Your task to perform on an android device: turn off data saver in the chrome app Image 0: 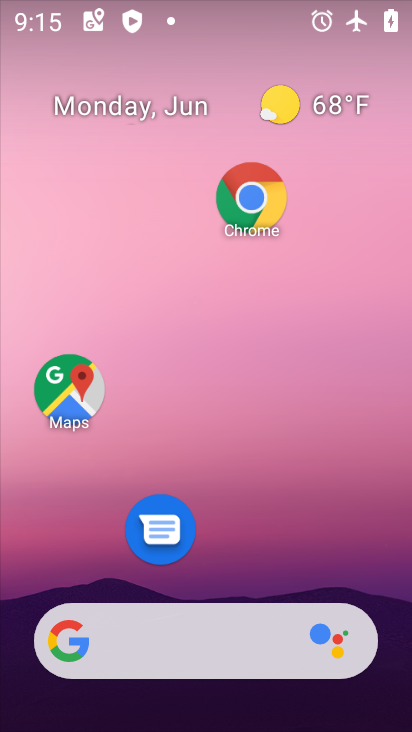
Step 0: click (264, 205)
Your task to perform on an android device: turn off data saver in the chrome app Image 1: 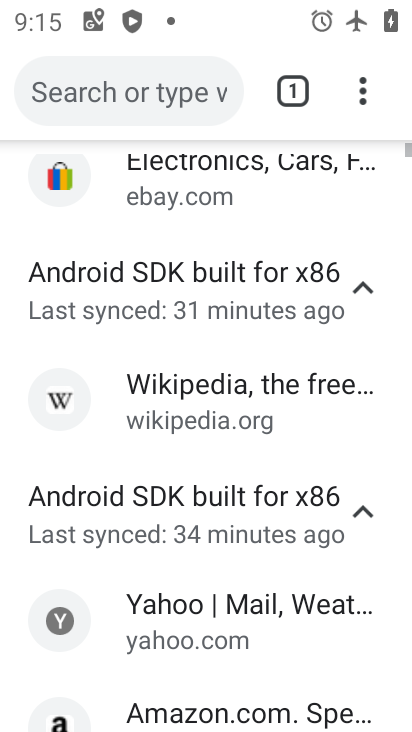
Step 1: drag from (358, 88) to (174, 583)
Your task to perform on an android device: turn off data saver in the chrome app Image 2: 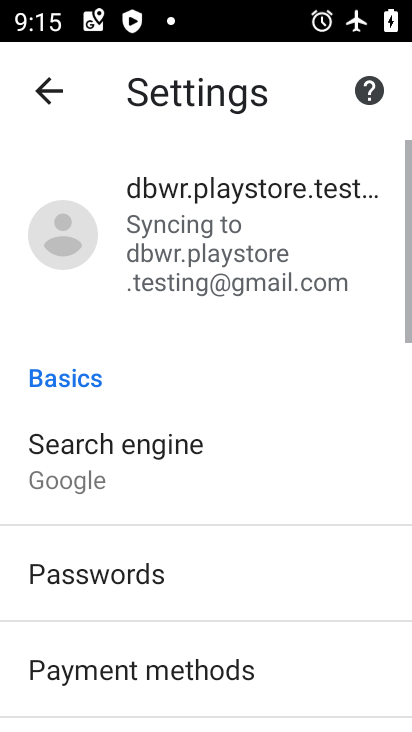
Step 2: drag from (193, 631) to (200, 318)
Your task to perform on an android device: turn off data saver in the chrome app Image 3: 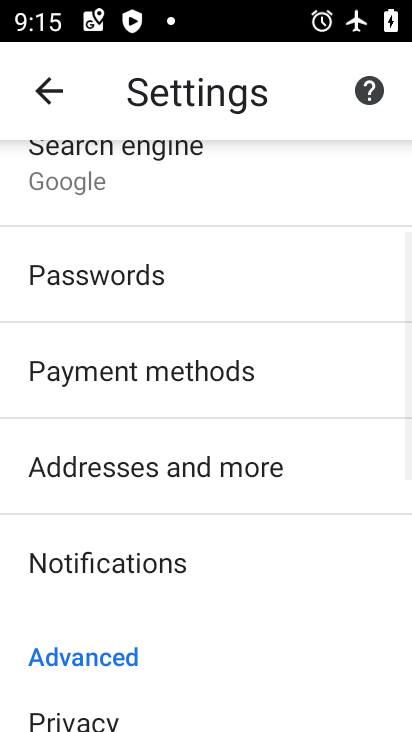
Step 3: drag from (312, 623) to (270, 246)
Your task to perform on an android device: turn off data saver in the chrome app Image 4: 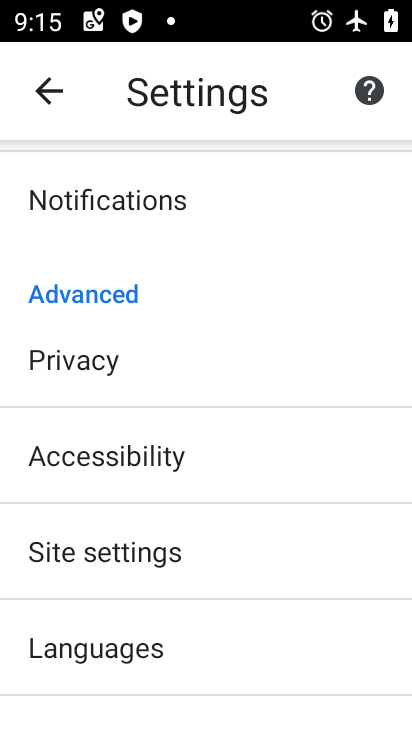
Step 4: drag from (248, 616) to (240, 353)
Your task to perform on an android device: turn off data saver in the chrome app Image 5: 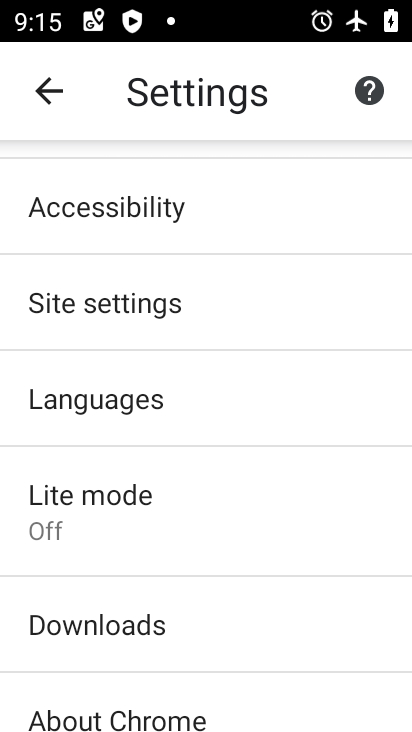
Step 5: click (184, 518)
Your task to perform on an android device: turn off data saver in the chrome app Image 6: 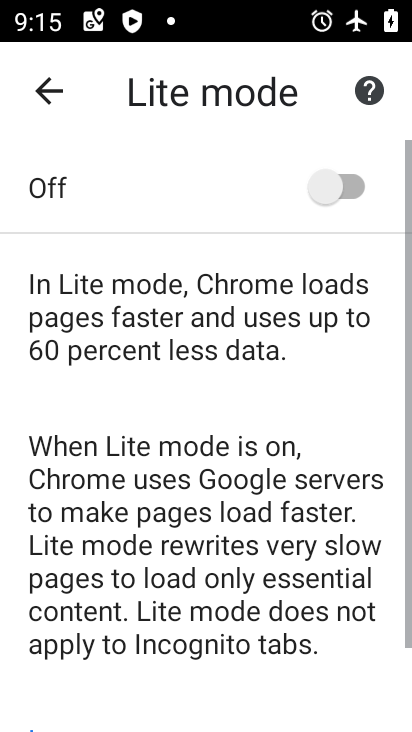
Step 6: task complete